Your task to perform on an android device: empty trash in google photos Image 0: 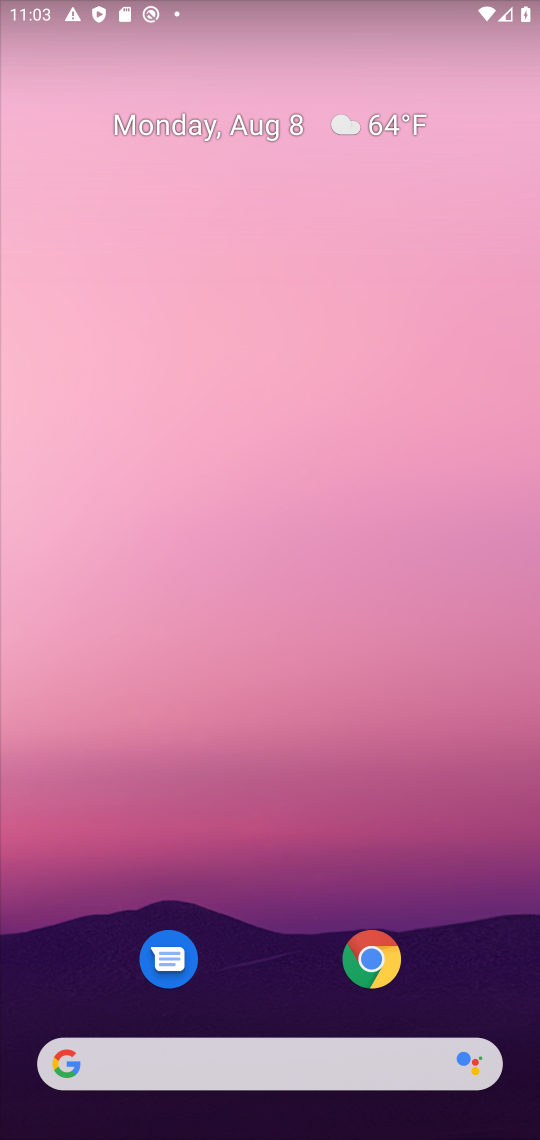
Step 0: drag from (489, 965) to (396, 97)
Your task to perform on an android device: empty trash in google photos Image 1: 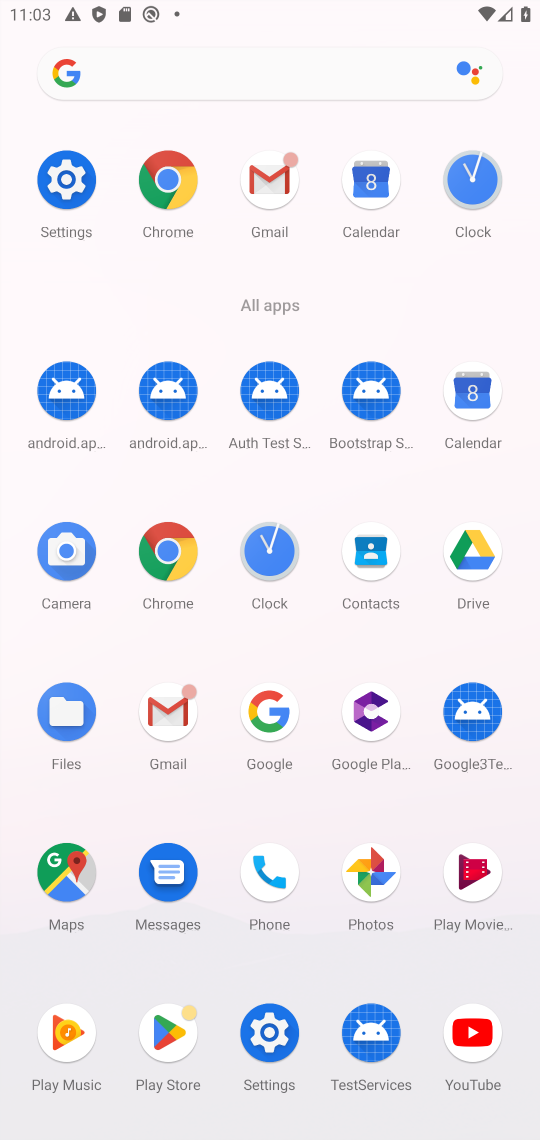
Step 1: click (357, 873)
Your task to perform on an android device: empty trash in google photos Image 2: 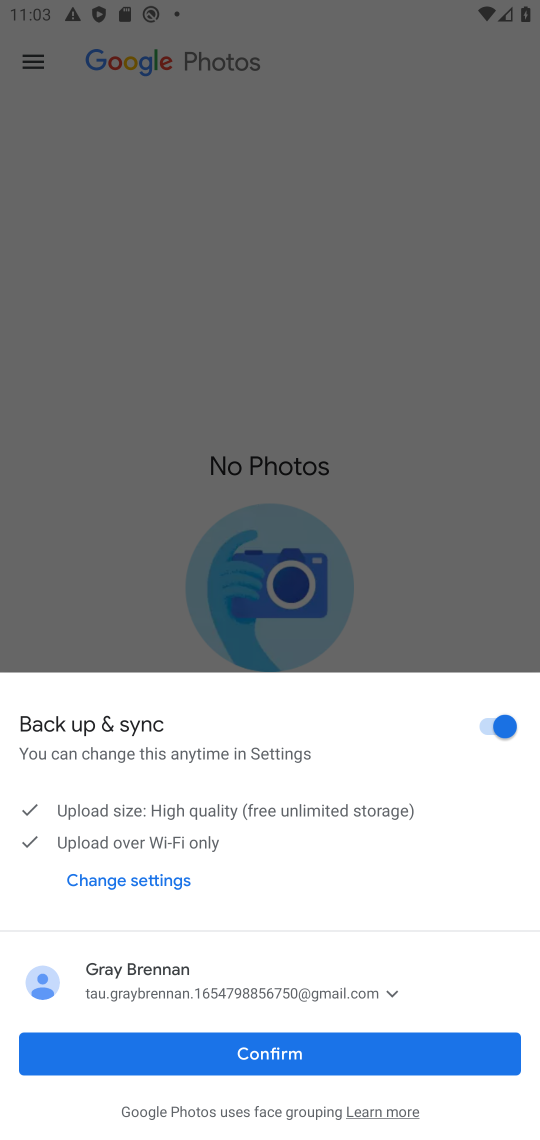
Step 2: click (330, 1047)
Your task to perform on an android device: empty trash in google photos Image 3: 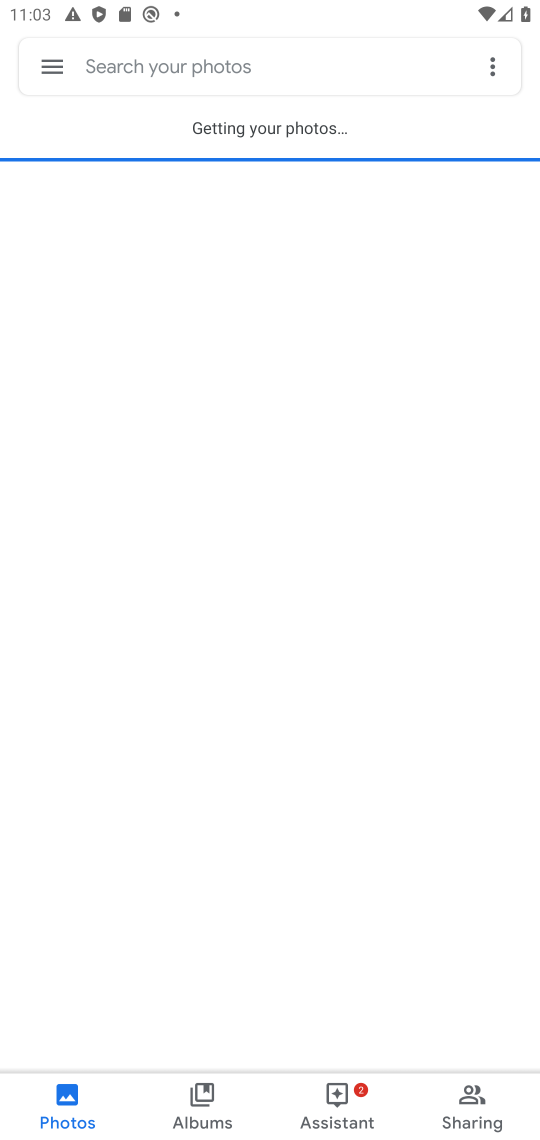
Step 3: click (49, 77)
Your task to perform on an android device: empty trash in google photos Image 4: 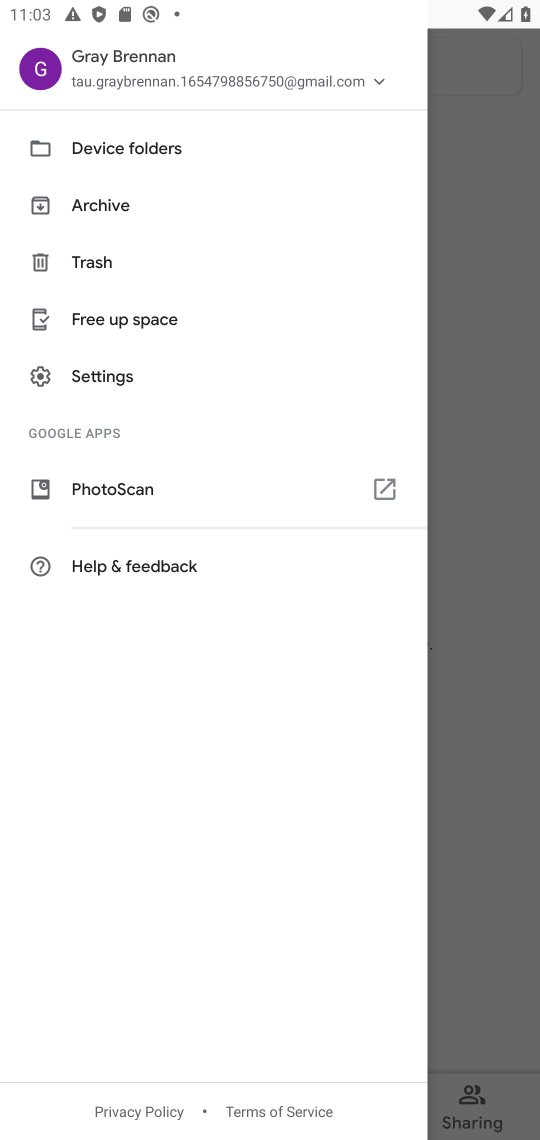
Step 4: click (86, 264)
Your task to perform on an android device: empty trash in google photos Image 5: 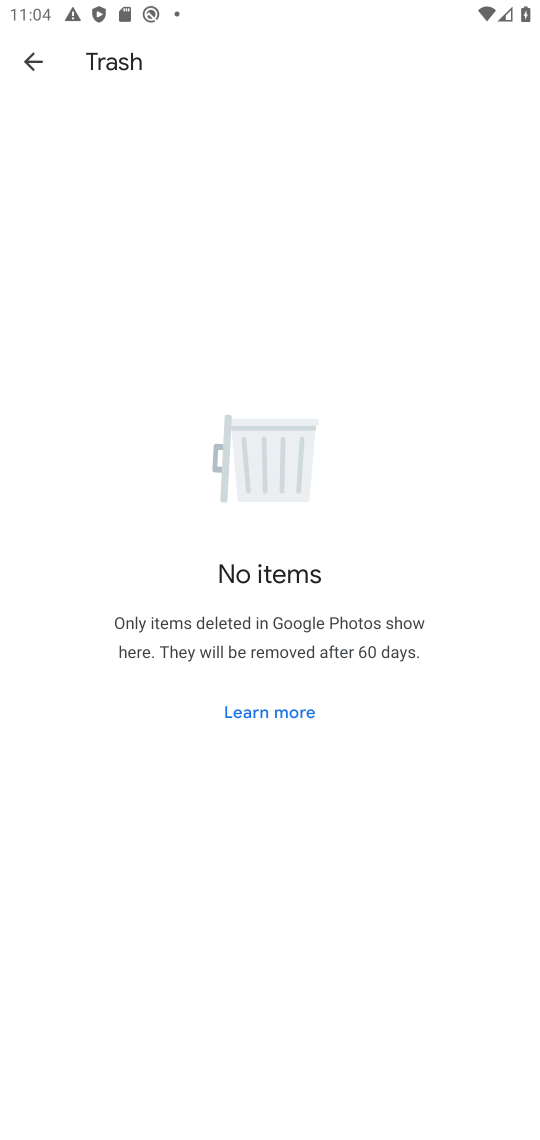
Step 5: task complete